Your task to perform on an android device: What is the news today? Image 0: 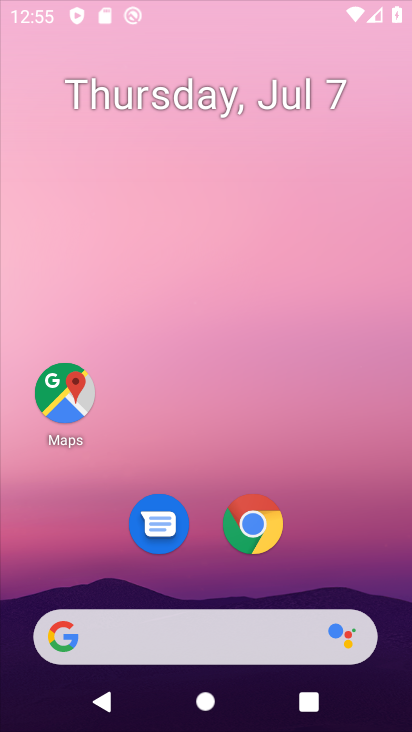
Step 0: click (194, 0)
Your task to perform on an android device: What is the news today? Image 1: 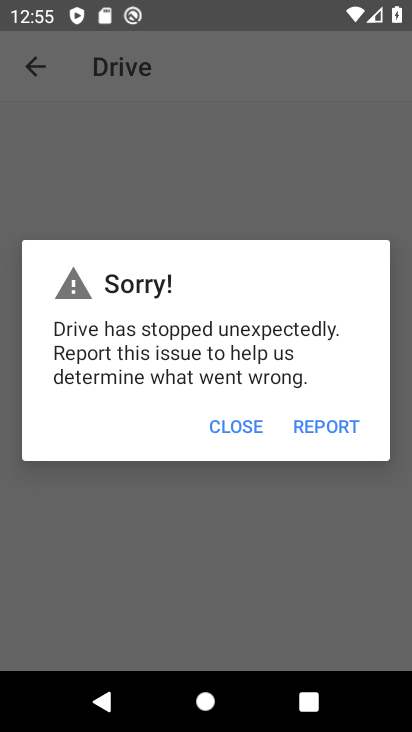
Step 1: press home button
Your task to perform on an android device: What is the news today? Image 2: 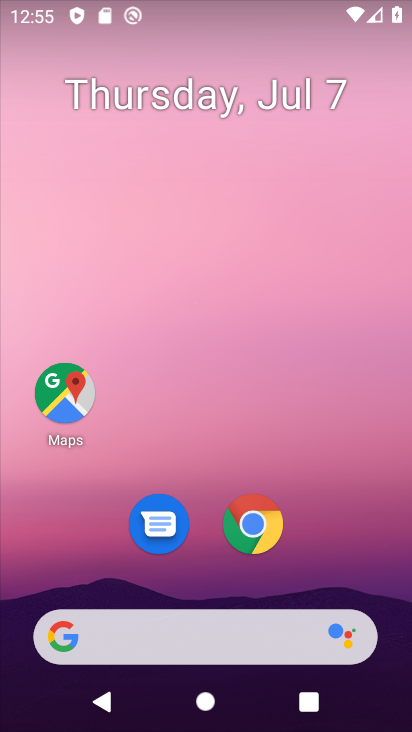
Step 2: click (238, 648)
Your task to perform on an android device: What is the news today? Image 3: 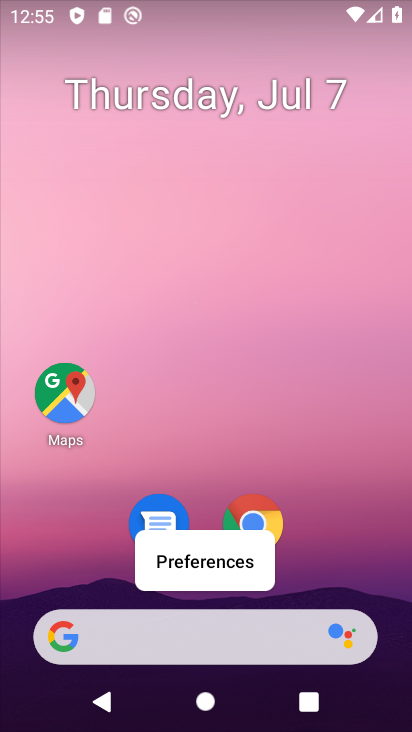
Step 3: click (237, 643)
Your task to perform on an android device: What is the news today? Image 4: 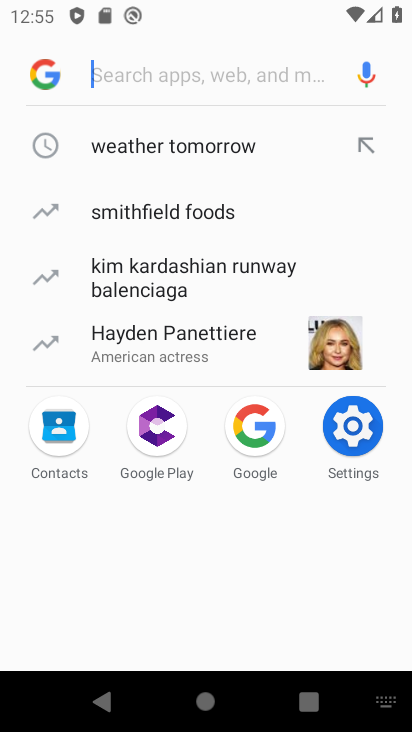
Step 4: type "news"
Your task to perform on an android device: What is the news today? Image 5: 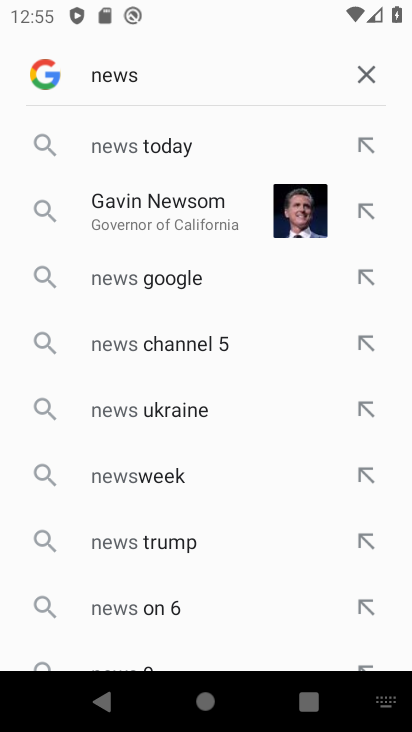
Step 5: click (171, 147)
Your task to perform on an android device: What is the news today? Image 6: 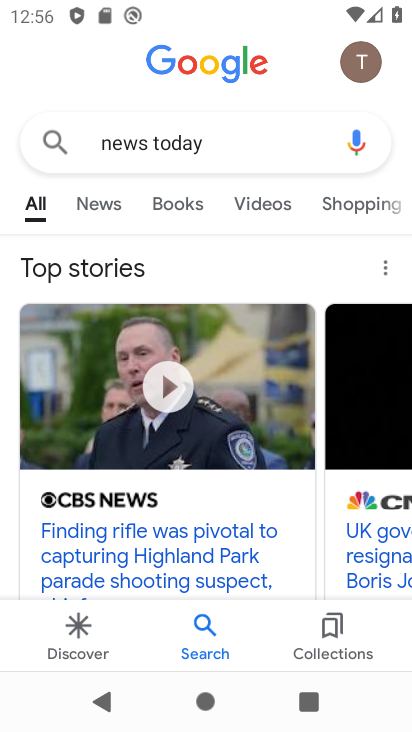
Step 6: click (98, 193)
Your task to perform on an android device: What is the news today? Image 7: 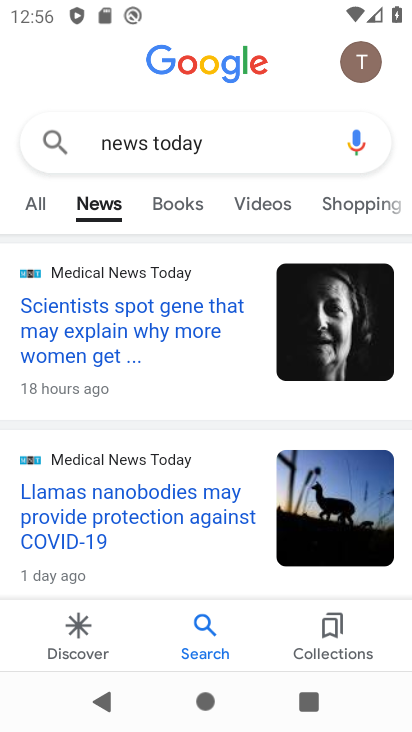
Step 7: click (36, 197)
Your task to perform on an android device: What is the news today? Image 8: 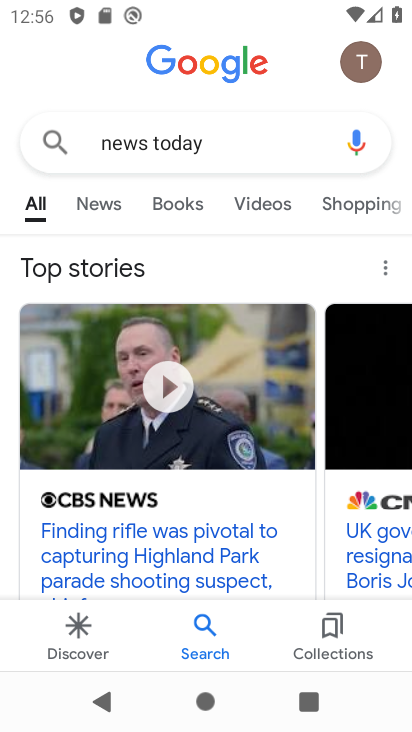
Step 8: task complete